Your task to perform on an android device: toggle priority inbox in the gmail app Image 0: 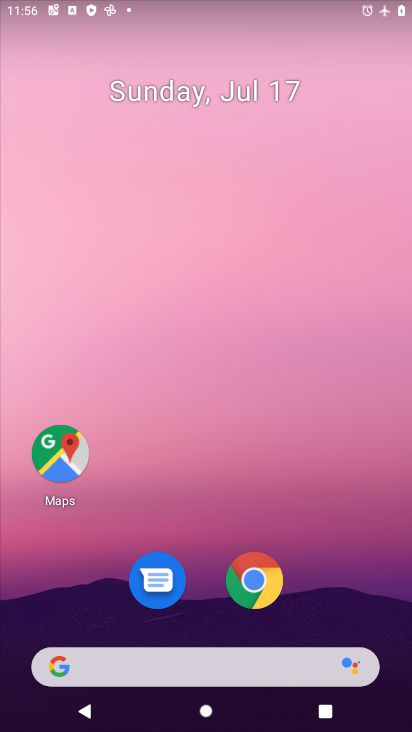
Step 0: drag from (234, 637) to (283, 218)
Your task to perform on an android device: toggle priority inbox in the gmail app Image 1: 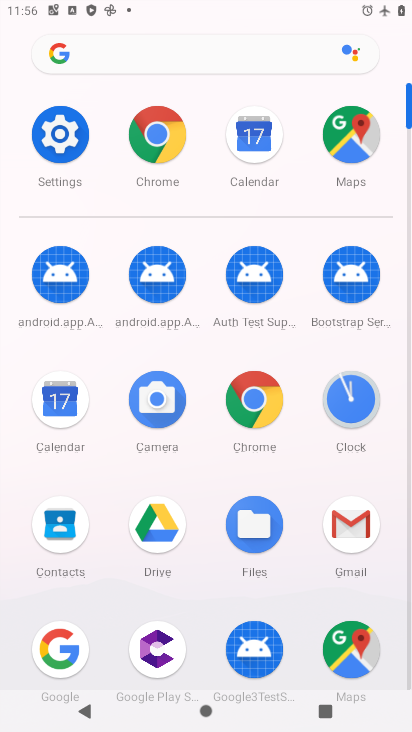
Step 1: click (350, 540)
Your task to perform on an android device: toggle priority inbox in the gmail app Image 2: 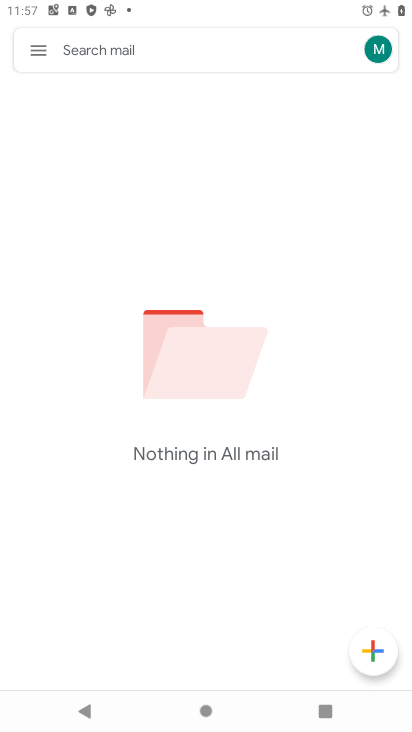
Step 2: click (34, 51)
Your task to perform on an android device: toggle priority inbox in the gmail app Image 3: 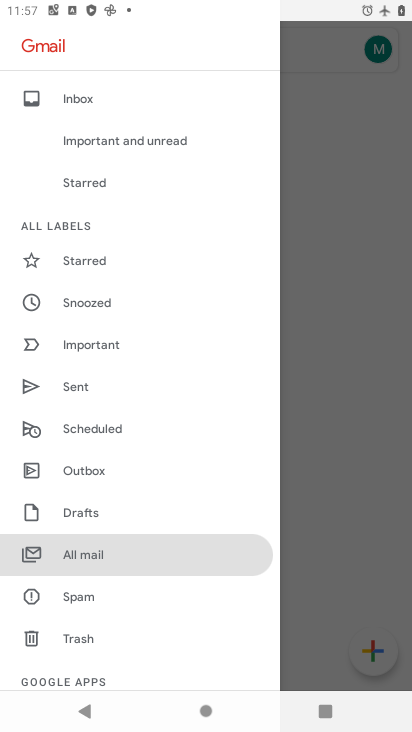
Step 3: drag from (88, 656) to (127, 196)
Your task to perform on an android device: toggle priority inbox in the gmail app Image 4: 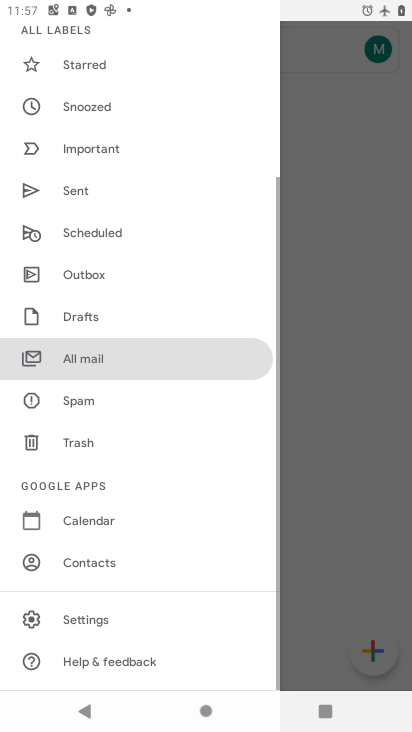
Step 4: click (82, 625)
Your task to perform on an android device: toggle priority inbox in the gmail app Image 5: 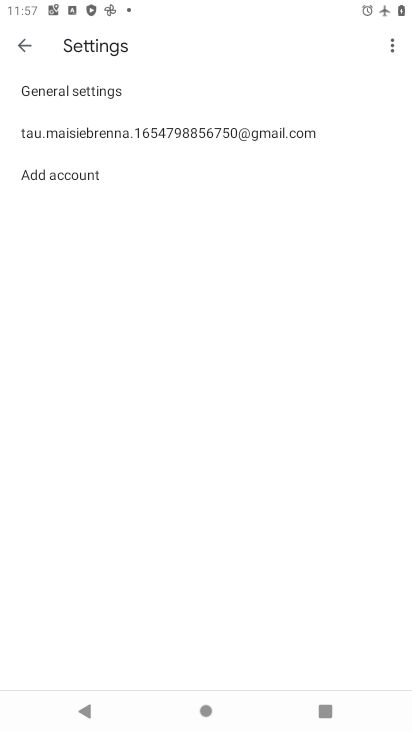
Step 5: click (116, 136)
Your task to perform on an android device: toggle priority inbox in the gmail app Image 6: 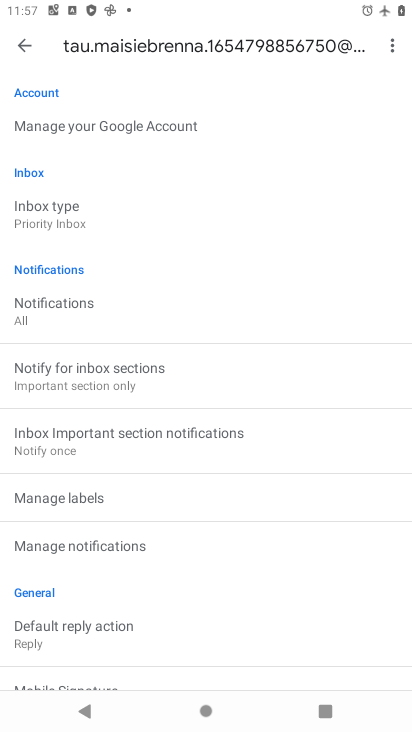
Step 6: click (71, 228)
Your task to perform on an android device: toggle priority inbox in the gmail app Image 7: 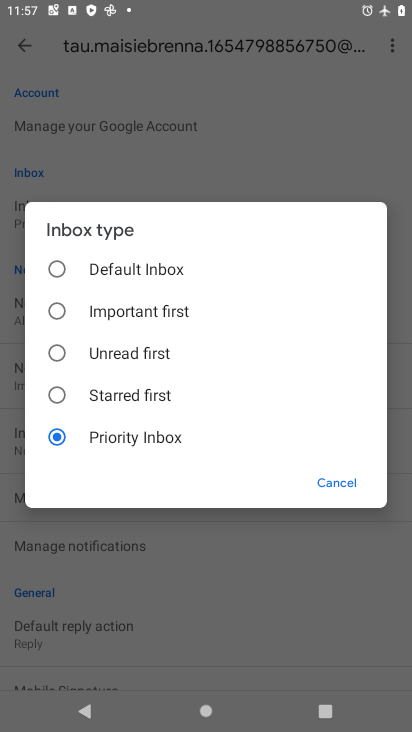
Step 7: click (58, 271)
Your task to perform on an android device: toggle priority inbox in the gmail app Image 8: 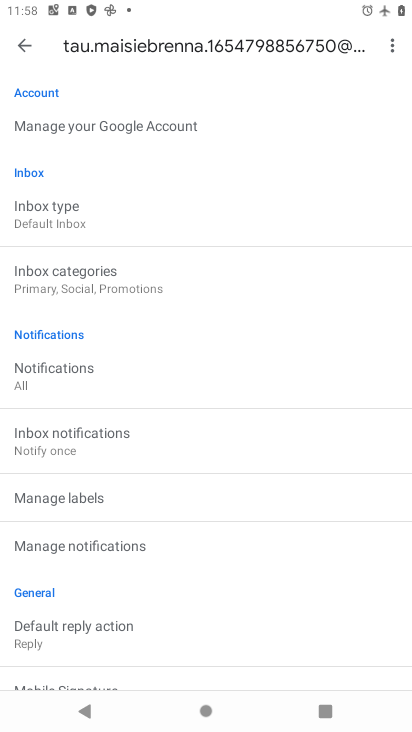
Step 8: task complete